Your task to perform on an android device: change text size in settings app Image 0: 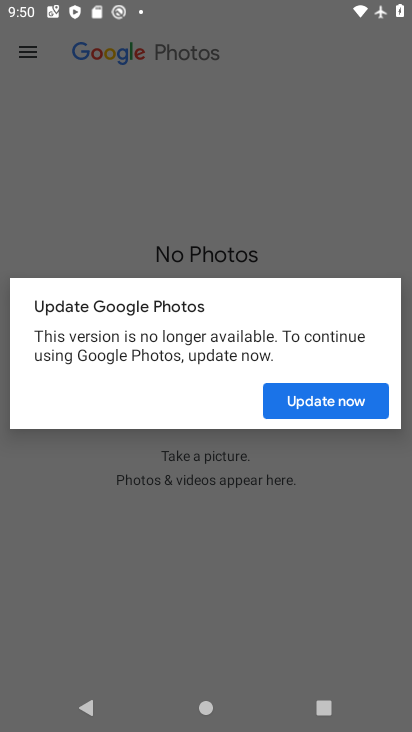
Step 0: press home button
Your task to perform on an android device: change text size in settings app Image 1: 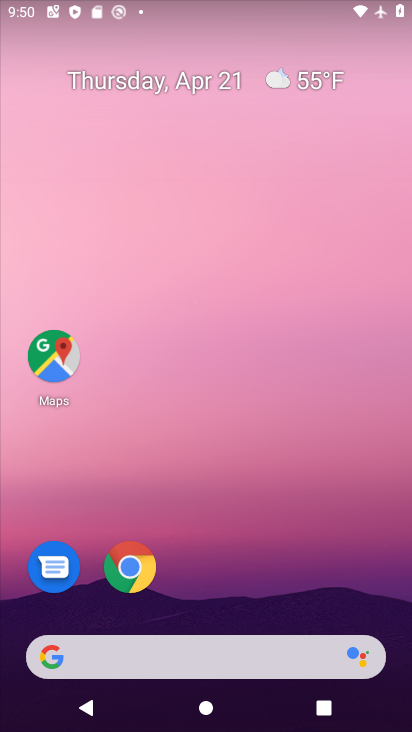
Step 1: drag from (308, 597) to (254, 82)
Your task to perform on an android device: change text size in settings app Image 2: 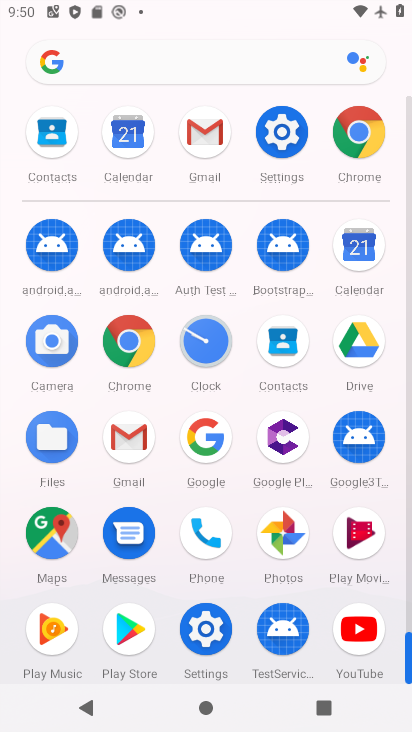
Step 2: click (203, 624)
Your task to perform on an android device: change text size in settings app Image 3: 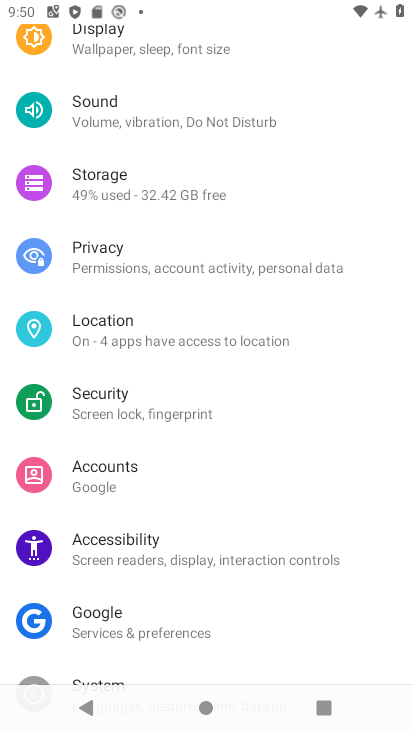
Step 3: drag from (268, 199) to (256, 452)
Your task to perform on an android device: change text size in settings app Image 4: 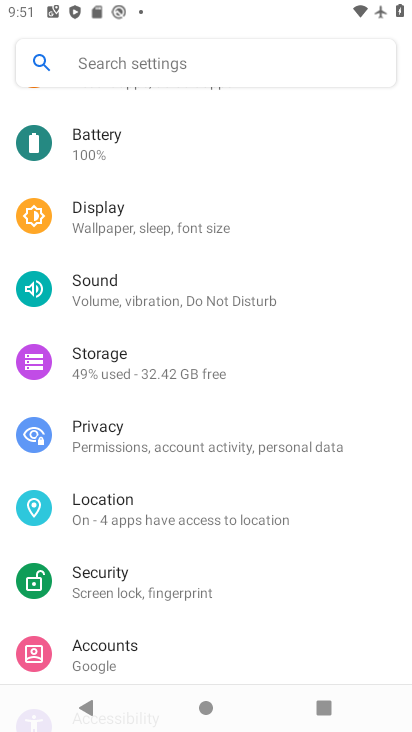
Step 4: click (129, 217)
Your task to perform on an android device: change text size in settings app Image 5: 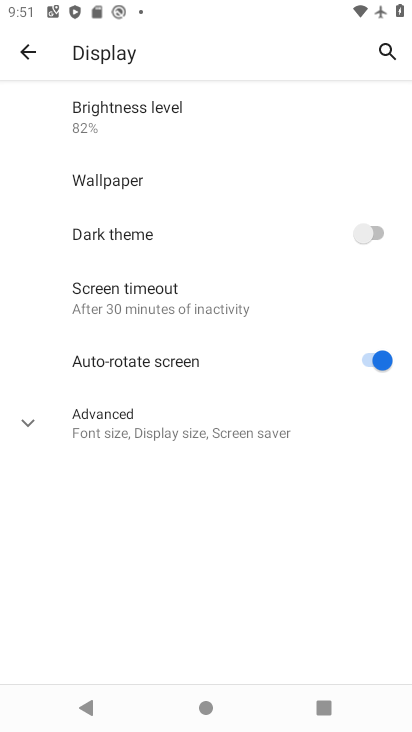
Step 5: click (24, 416)
Your task to perform on an android device: change text size in settings app Image 6: 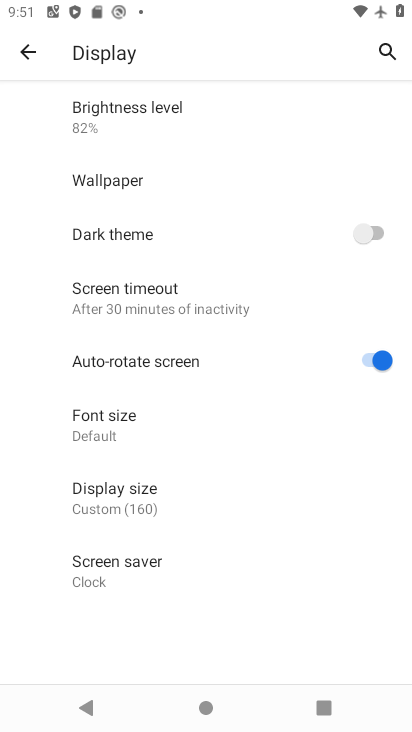
Step 6: click (101, 426)
Your task to perform on an android device: change text size in settings app Image 7: 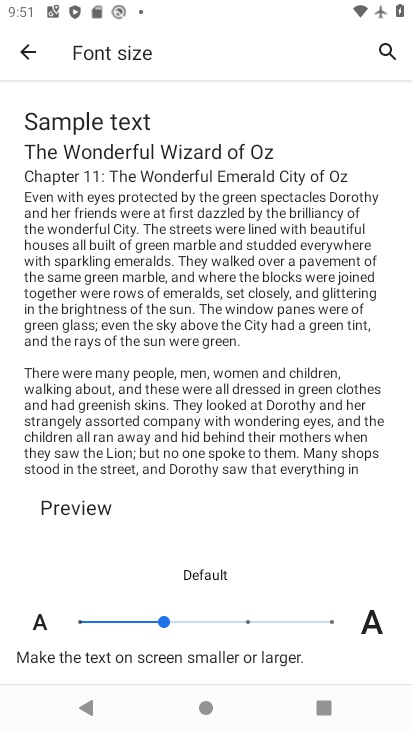
Step 7: click (244, 622)
Your task to perform on an android device: change text size in settings app Image 8: 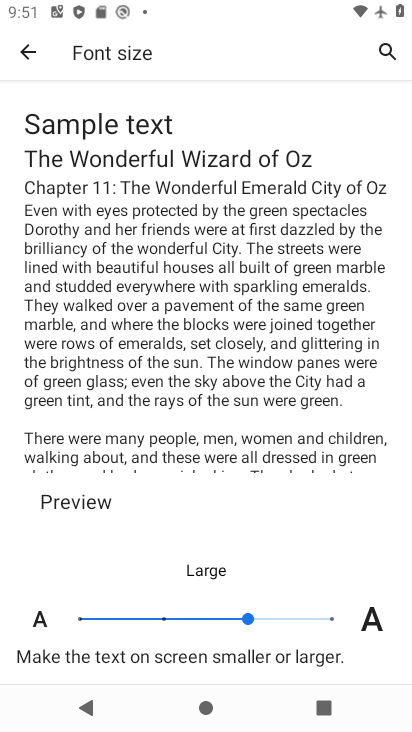
Step 8: task complete